Your task to perform on an android device: allow cookies in the chrome app Image 0: 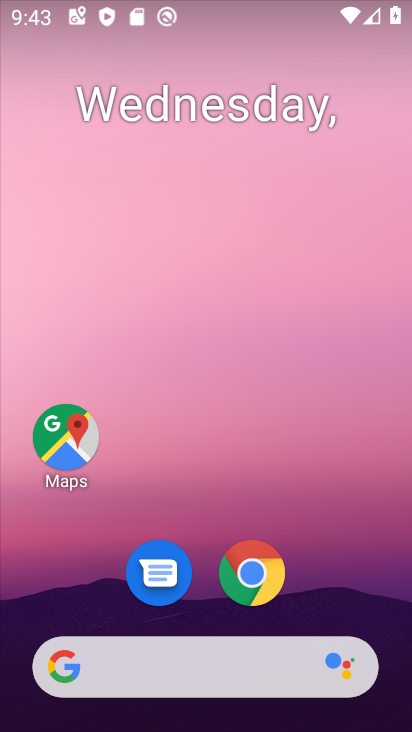
Step 0: click (252, 578)
Your task to perform on an android device: allow cookies in the chrome app Image 1: 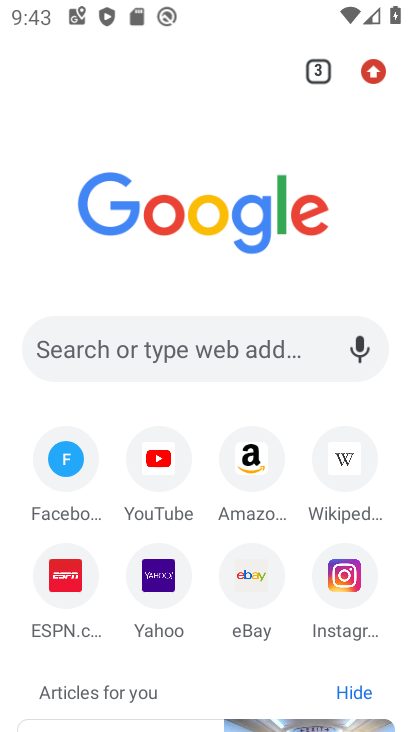
Step 1: click (361, 66)
Your task to perform on an android device: allow cookies in the chrome app Image 2: 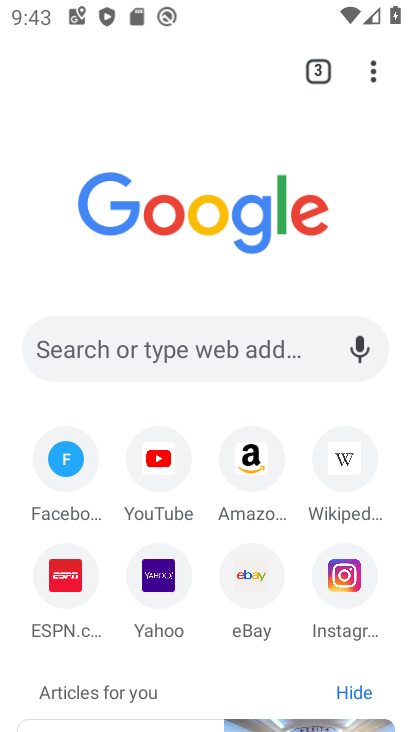
Step 2: click (373, 66)
Your task to perform on an android device: allow cookies in the chrome app Image 3: 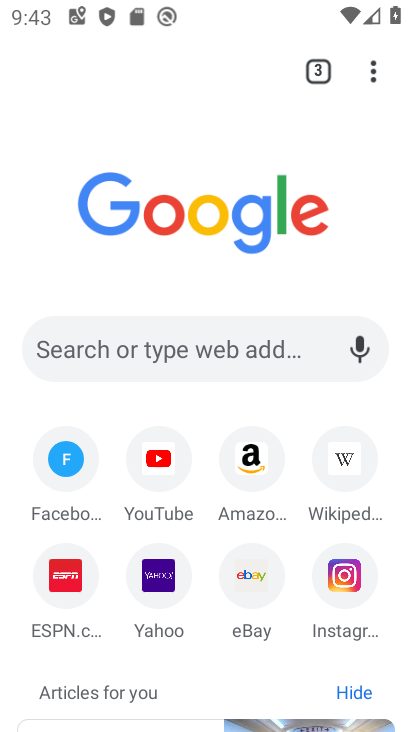
Step 3: click (373, 66)
Your task to perform on an android device: allow cookies in the chrome app Image 4: 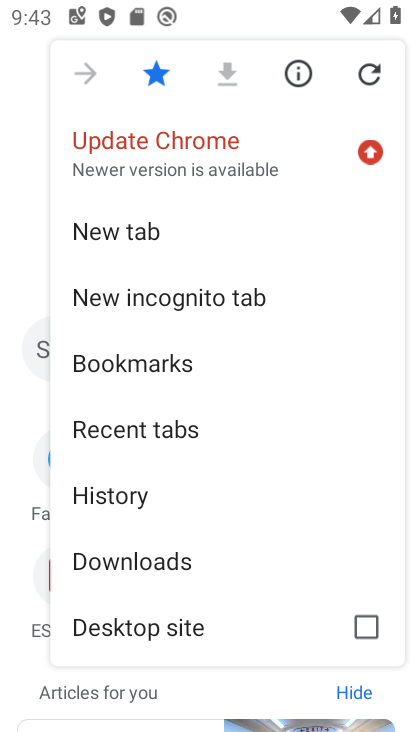
Step 4: drag from (288, 387) to (285, 240)
Your task to perform on an android device: allow cookies in the chrome app Image 5: 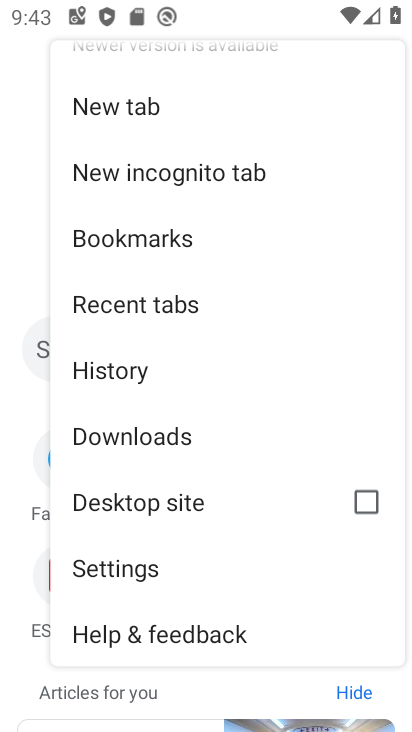
Step 5: click (123, 568)
Your task to perform on an android device: allow cookies in the chrome app Image 6: 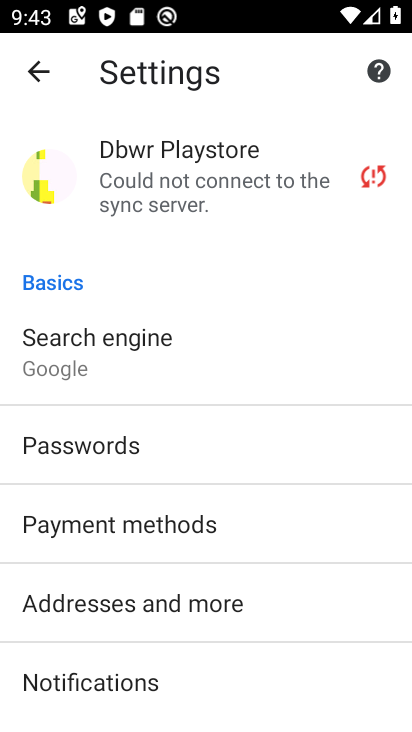
Step 6: drag from (297, 653) to (326, 341)
Your task to perform on an android device: allow cookies in the chrome app Image 7: 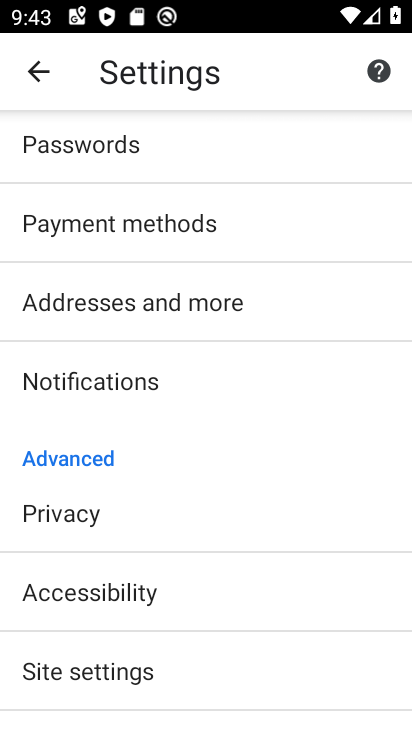
Step 7: drag from (293, 469) to (294, 351)
Your task to perform on an android device: allow cookies in the chrome app Image 8: 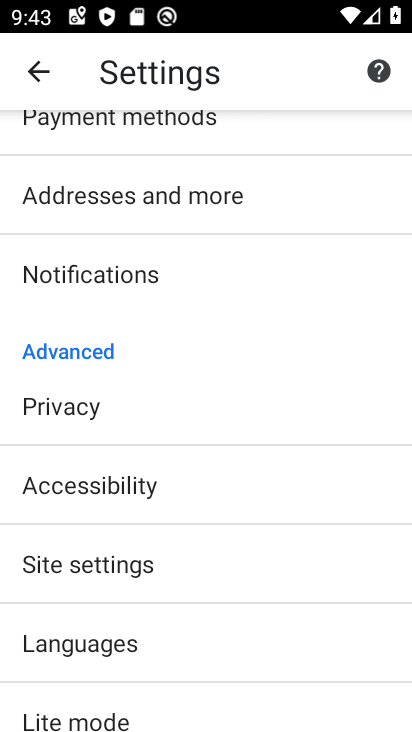
Step 8: click (100, 563)
Your task to perform on an android device: allow cookies in the chrome app Image 9: 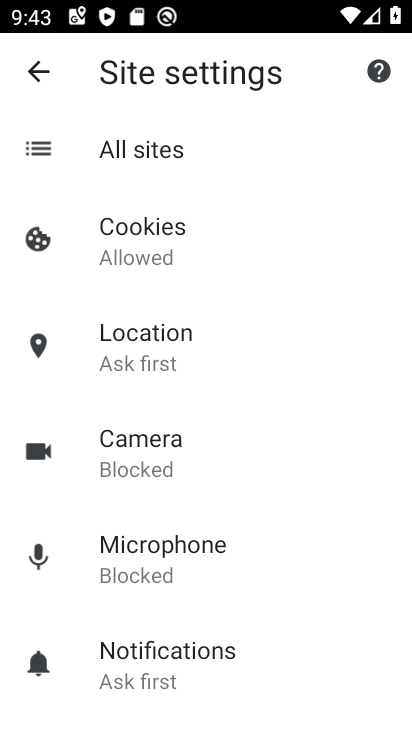
Step 9: click (136, 233)
Your task to perform on an android device: allow cookies in the chrome app Image 10: 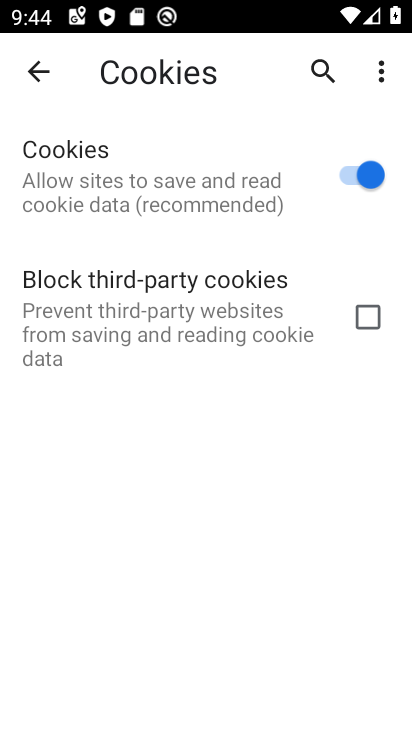
Step 10: task complete